Your task to perform on an android device: Find coffee shops on Maps Image 0: 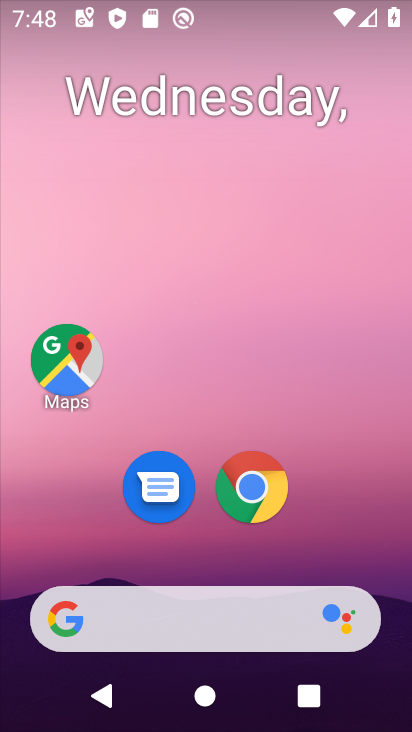
Step 0: drag from (378, 539) to (388, 230)
Your task to perform on an android device: Find coffee shops on Maps Image 1: 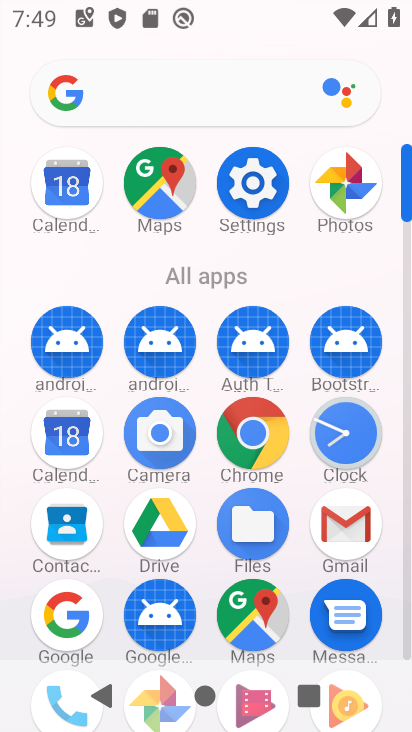
Step 1: drag from (403, 600) to (386, 441)
Your task to perform on an android device: Find coffee shops on Maps Image 2: 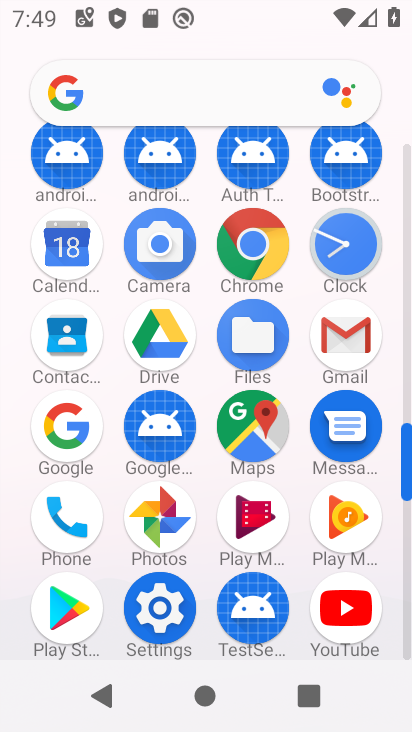
Step 2: click (253, 463)
Your task to perform on an android device: Find coffee shops on Maps Image 3: 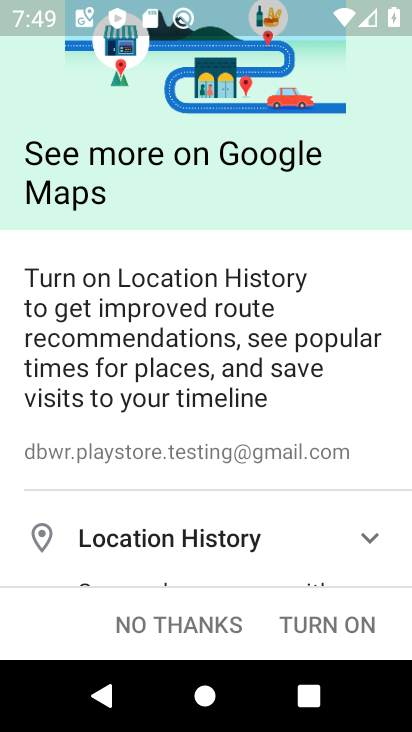
Step 3: task complete